Your task to perform on an android device: search for starred emails in the gmail app Image 0: 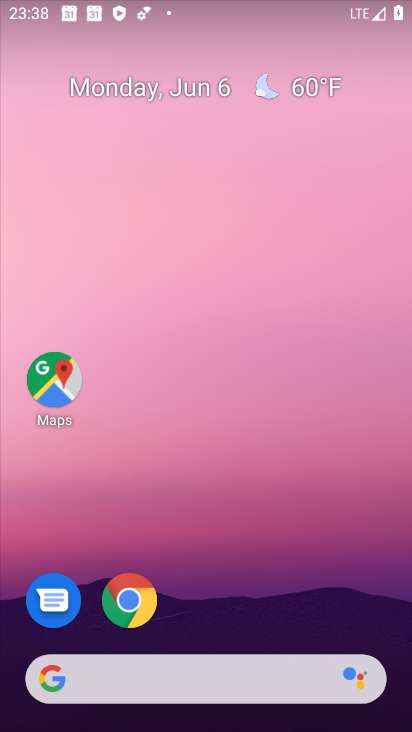
Step 0: drag from (242, 709) to (195, 4)
Your task to perform on an android device: search for starred emails in the gmail app Image 1: 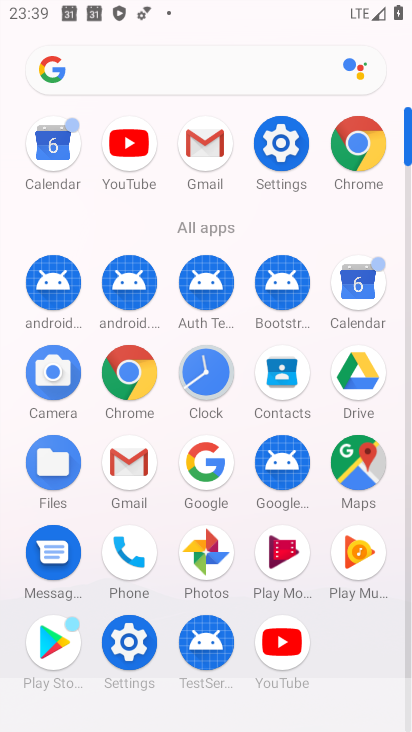
Step 1: click (132, 470)
Your task to perform on an android device: search for starred emails in the gmail app Image 2: 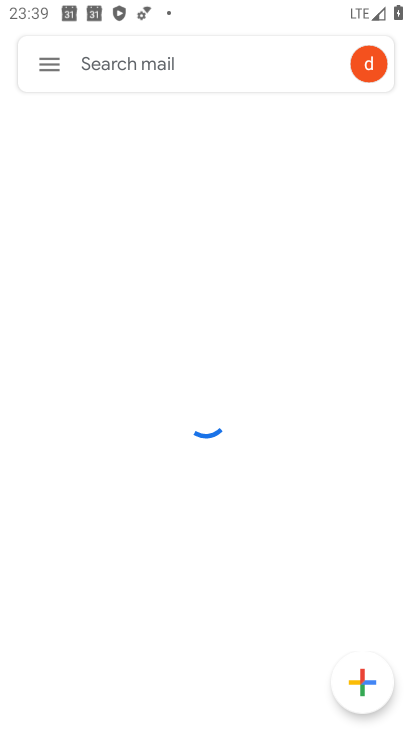
Step 2: click (49, 65)
Your task to perform on an android device: search for starred emails in the gmail app Image 3: 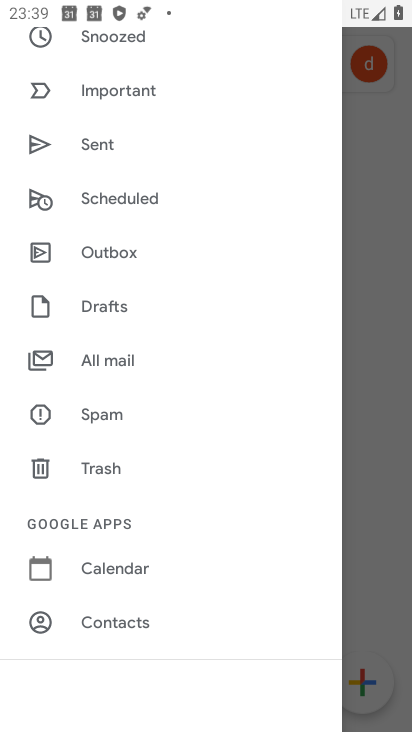
Step 3: drag from (119, 126) to (176, 424)
Your task to perform on an android device: search for starred emails in the gmail app Image 4: 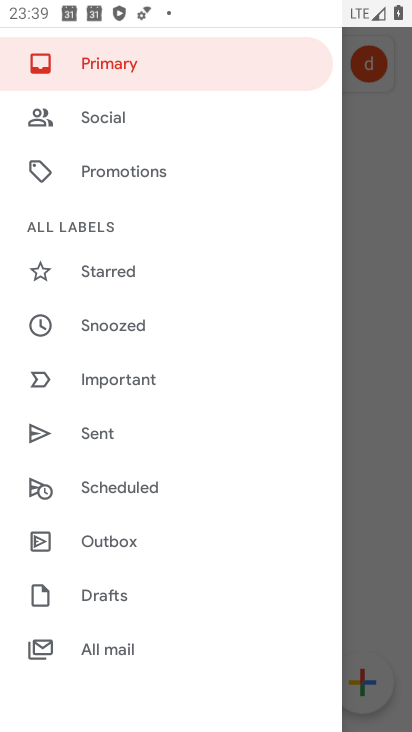
Step 4: click (123, 274)
Your task to perform on an android device: search for starred emails in the gmail app Image 5: 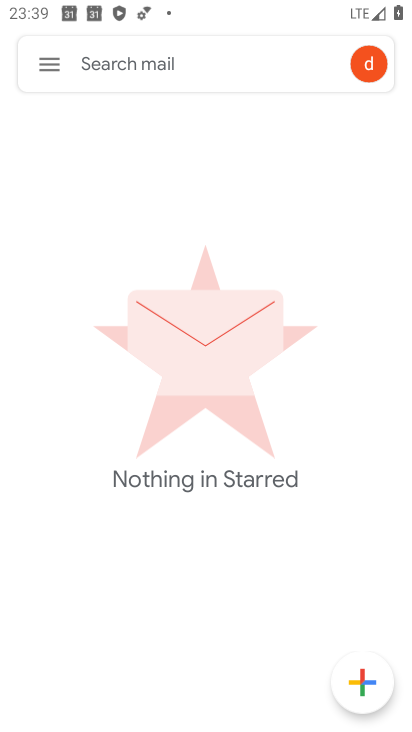
Step 5: task complete